Your task to perform on an android device: visit the assistant section in the google photos Image 0: 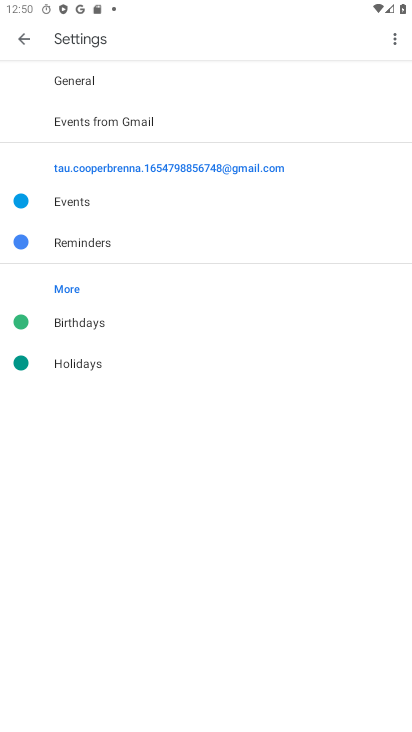
Step 0: press home button
Your task to perform on an android device: visit the assistant section in the google photos Image 1: 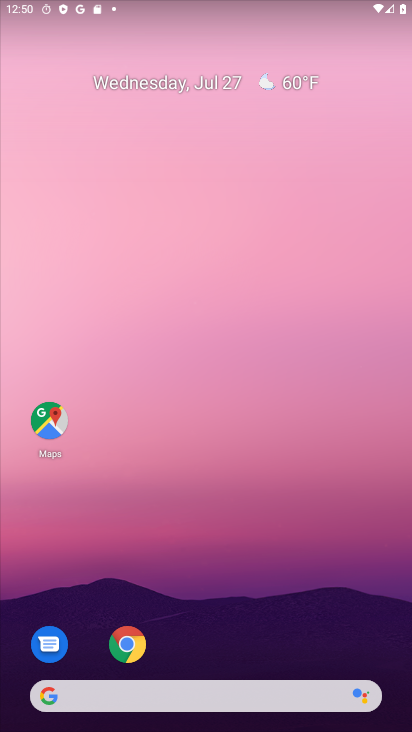
Step 1: drag from (211, 505) to (405, 455)
Your task to perform on an android device: visit the assistant section in the google photos Image 2: 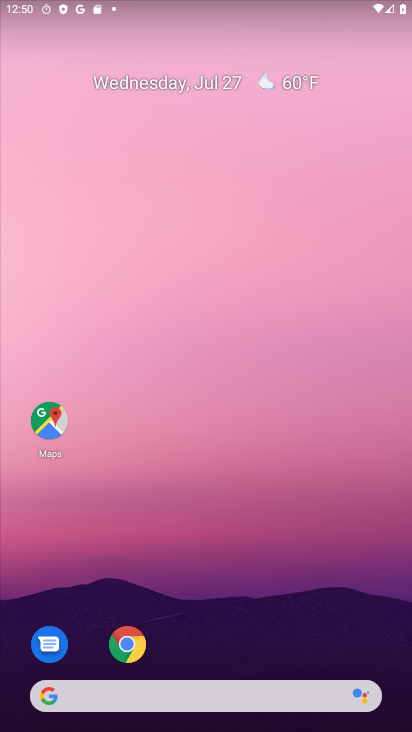
Step 2: drag from (171, 642) to (229, 200)
Your task to perform on an android device: visit the assistant section in the google photos Image 3: 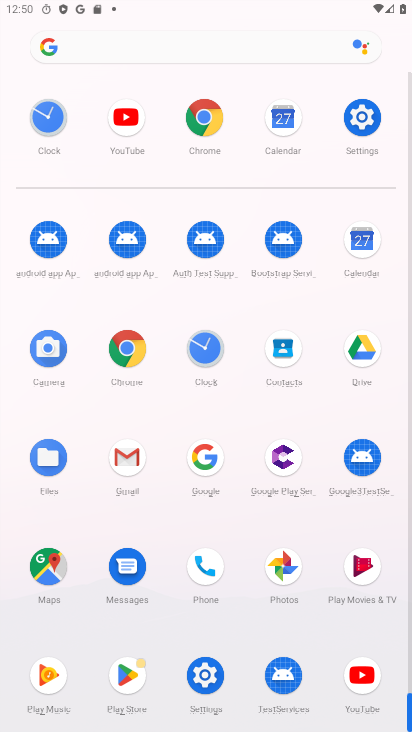
Step 3: click (278, 566)
Your task to perform on an android device: visit the assistant section in the google photos Image 4: 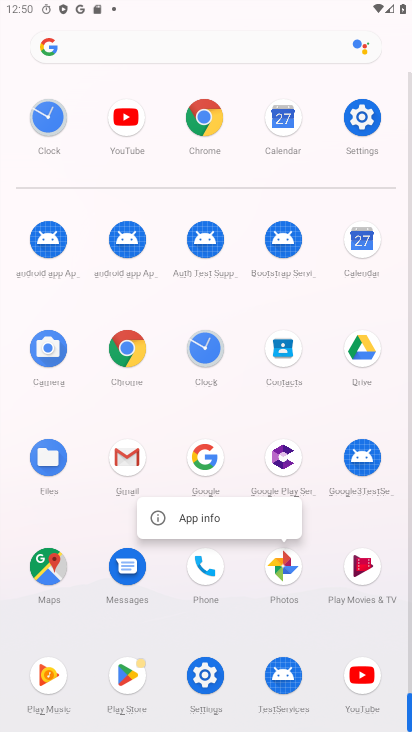
Step 4: click (184, 509)
Your task to perform on an android device: visit the assistant section in the google photos Image 5: 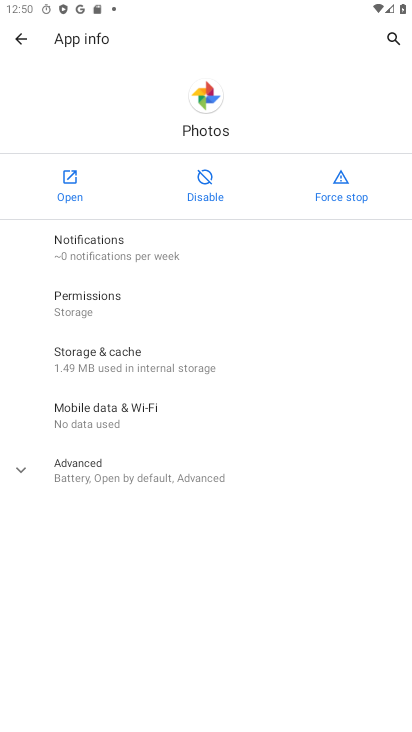
Step 5: click (61, 182)
Your task to perform on an android device: visit the assistant section in the google photos Image 6: 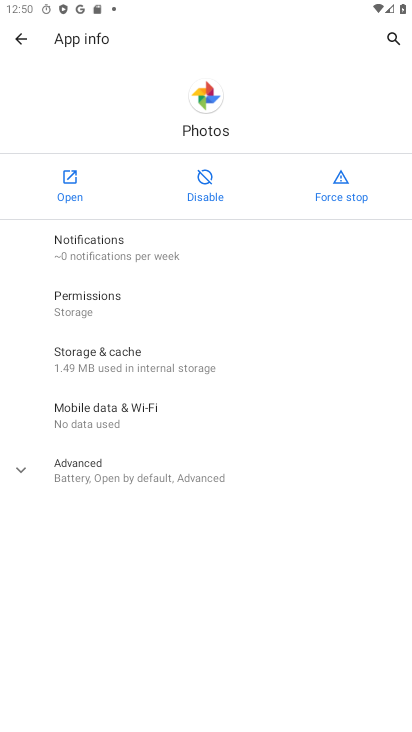
Step 6: click (61, 182)
Your task to perform on an android device: visit the assistant section in the google photos Image 7: 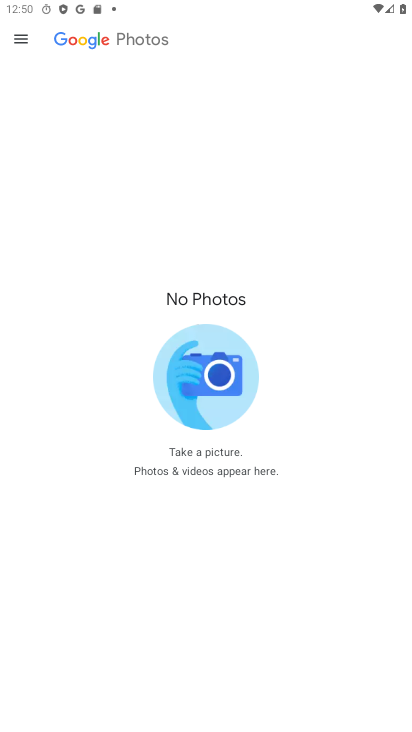
Step 7: click (23, 38)
Your task to perform on an android device: visit the assistant section in the google photos Image 8: 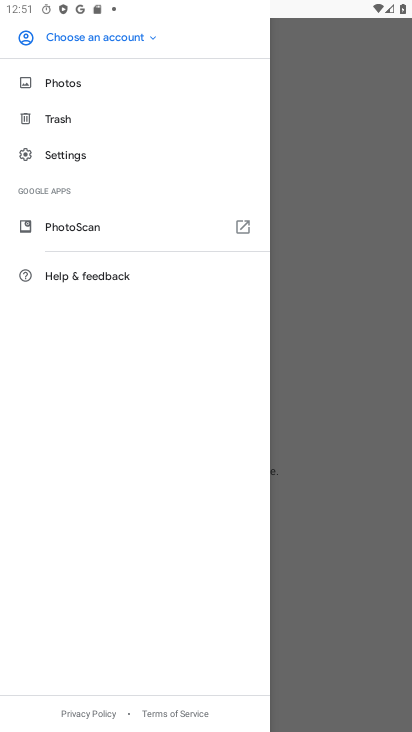
Step 8: click (69, 86)
Your task to perform on an android device: visit the assistant section in the google photos Image 9: 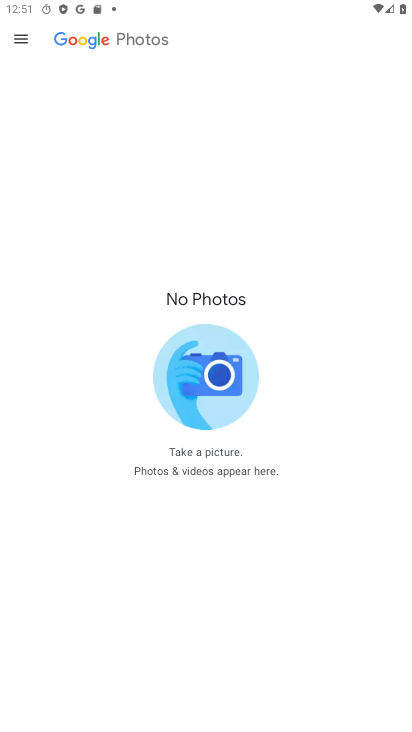
Step 9: click (332, 331)
Your task to perform on an android device: visit the assistant section in the google photos Image 10: 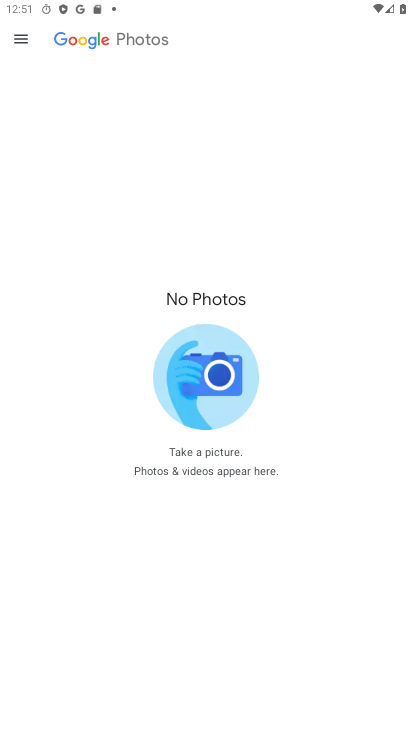
Step 10: task complete